Your task to perform on an android device: change the clock style Image 0: 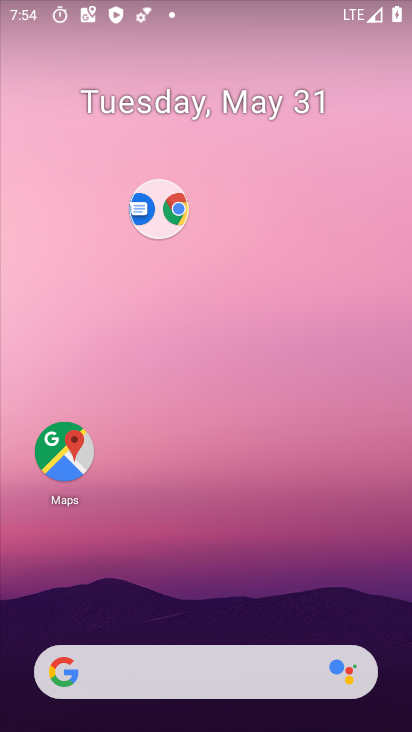
Step 0: drag from (219, 606) to (161, 47)
Your task to perform on an android device: change the clock style Image 1: 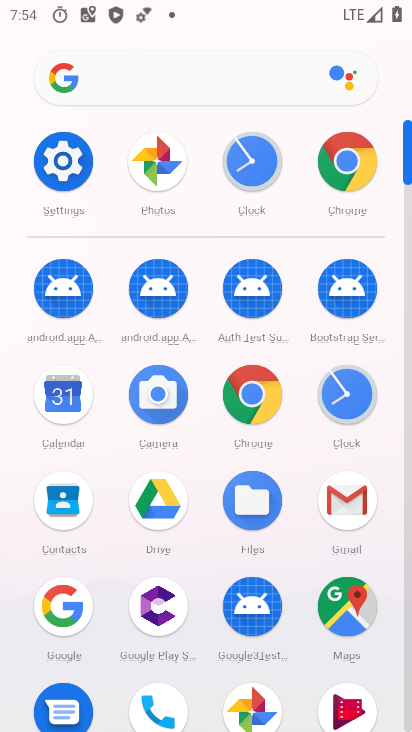
Step 1: click (340, 384)
Your task to perform on an android device: change the clock style Image 2: 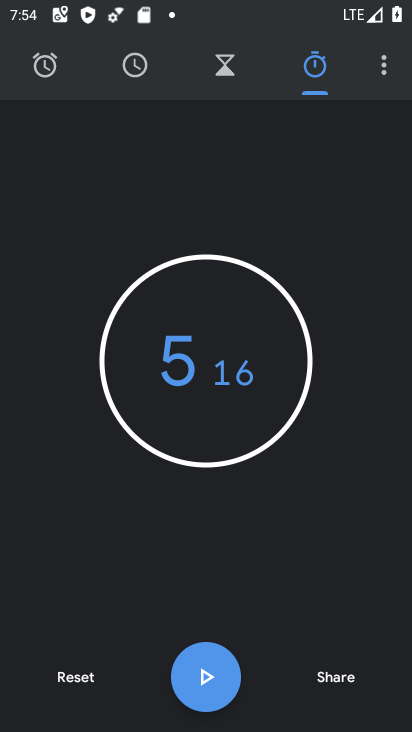
Step 2: click (387, 69)
Your task to perform on an android device: change the clock style Image 3: 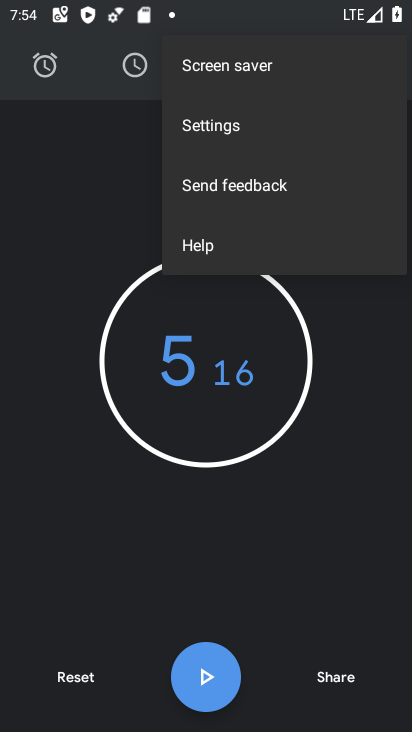
Step 3: click (239, 147)
Your task to perform on an android device: change the clock style Image 4: 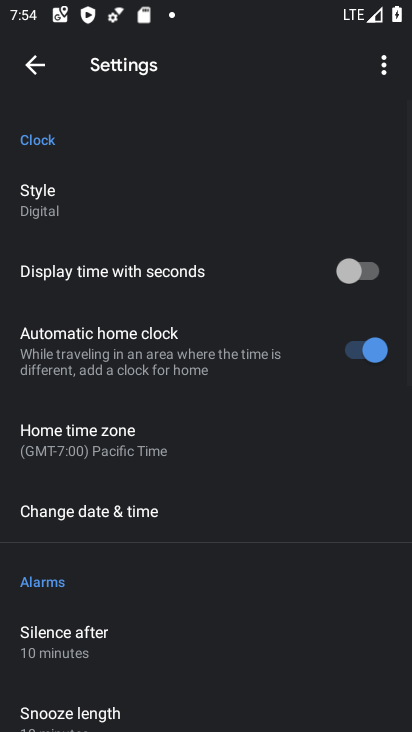
Step 4: click (72, 200)
Your task to perform on an android device: change the clock style Image 5: 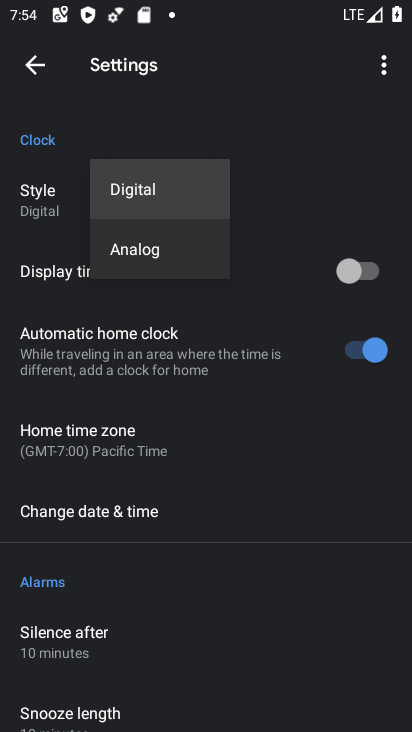
Step 5: click (135, 254)
Your task to perform on an android device: change the clock style Image 6: 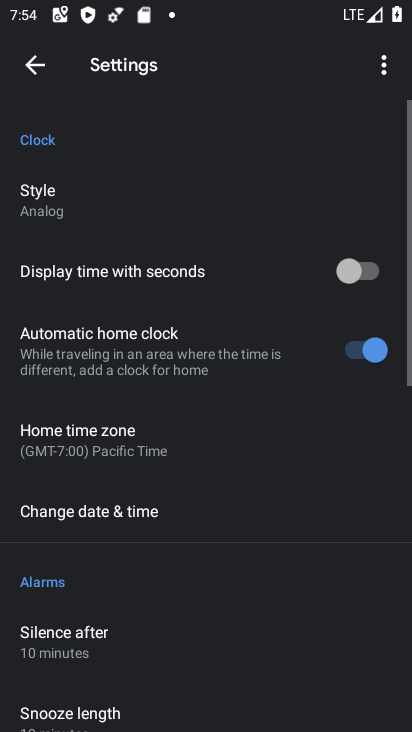
Step 6: task complete